Your task to perform on an android device: star an email in the gmail app Image 0: 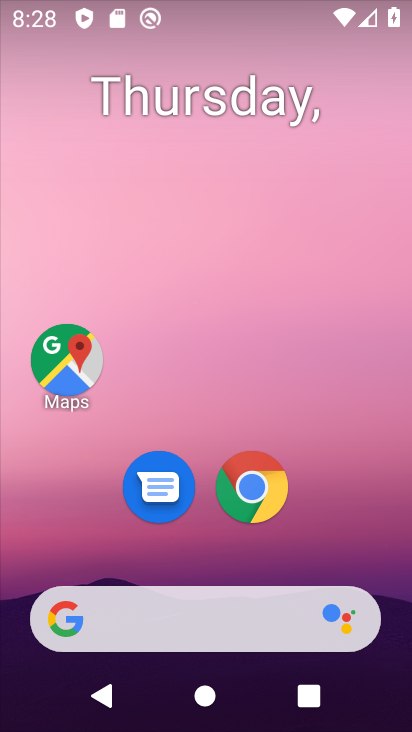
Step 0: drag from (237, 657) to (311, 260)
Your task to perform on an android device: star an email in the gmail app Image 1: 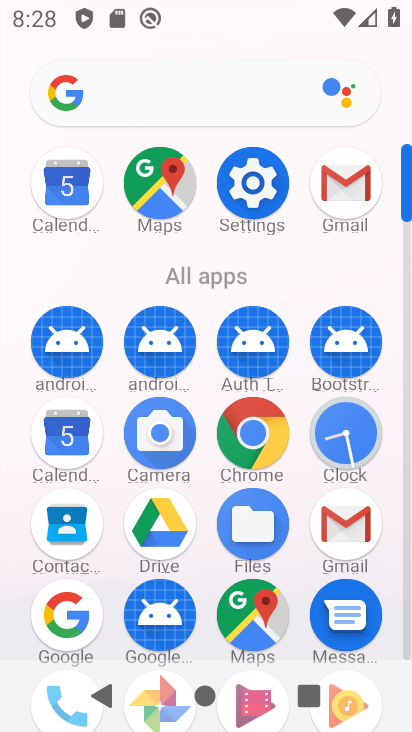
Step 1: click (355, 207)
Your task to perform on an android device: star an email in the gmail app Image 2: 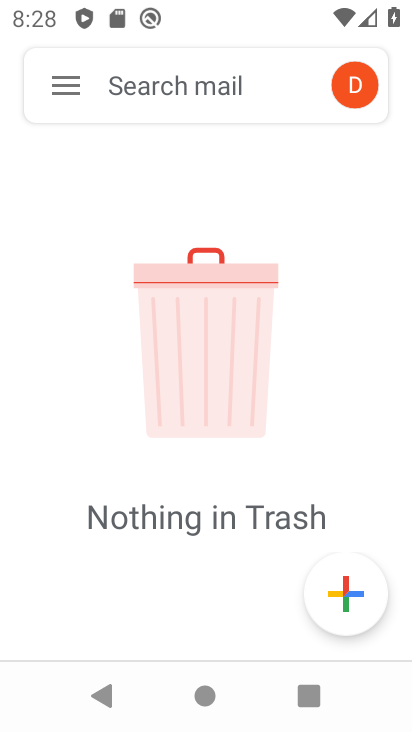
Step 2: click (52, 72)
Your task to perform on an android device: star an email in the gmail app Image 3: 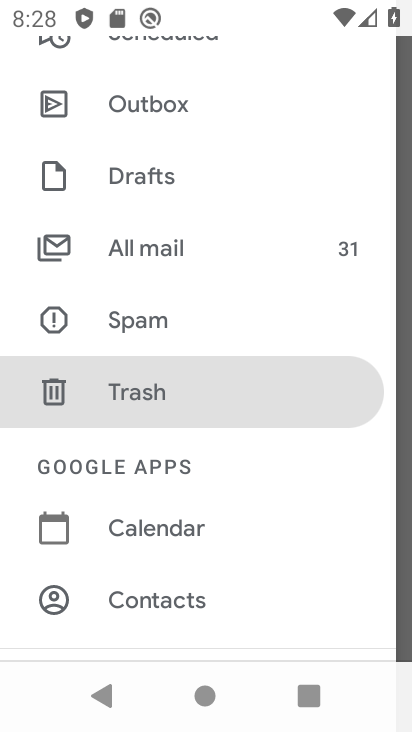
Step 3: drag from (148, 273) to (155, 552)
Your task to perform on an android device: star an email in the gmail app Image 4: 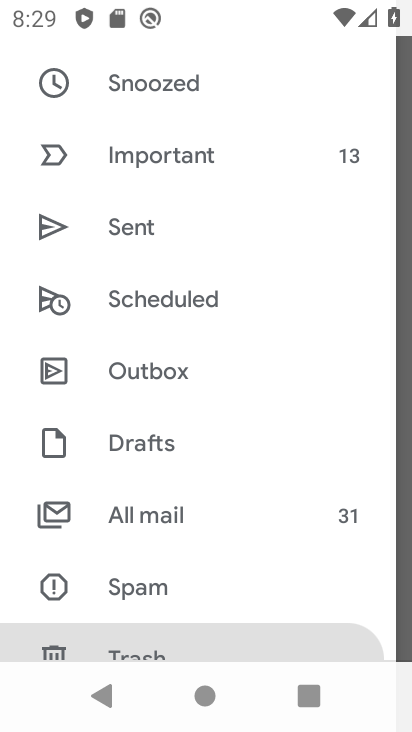
Step 4: drag from (180, 210) to (138, 318)
Your task to perform on an android device: star an email in the gmail app Image 5: 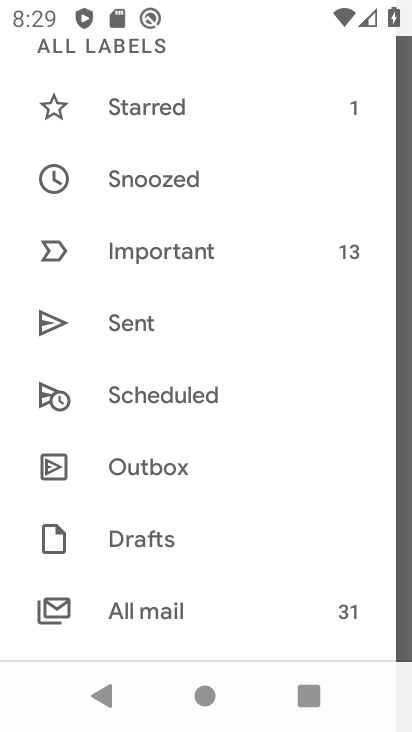
Step 5: click (206, 103)
Your task to perform on an android device: star an email in the gmail app Image 6: 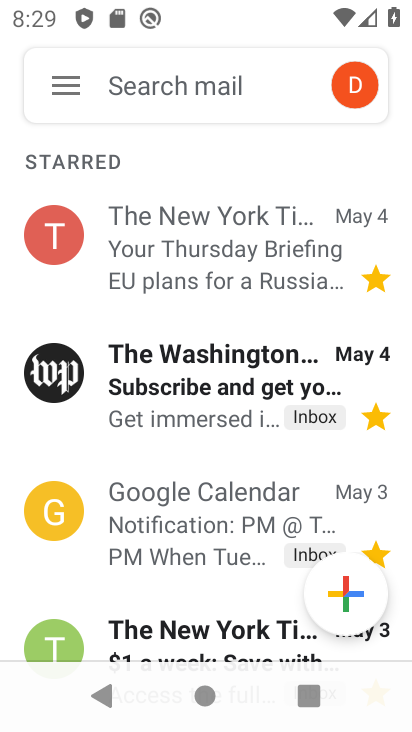
Step 6: task complete